Your task to perform on an android device: turn off wifi Image 0: 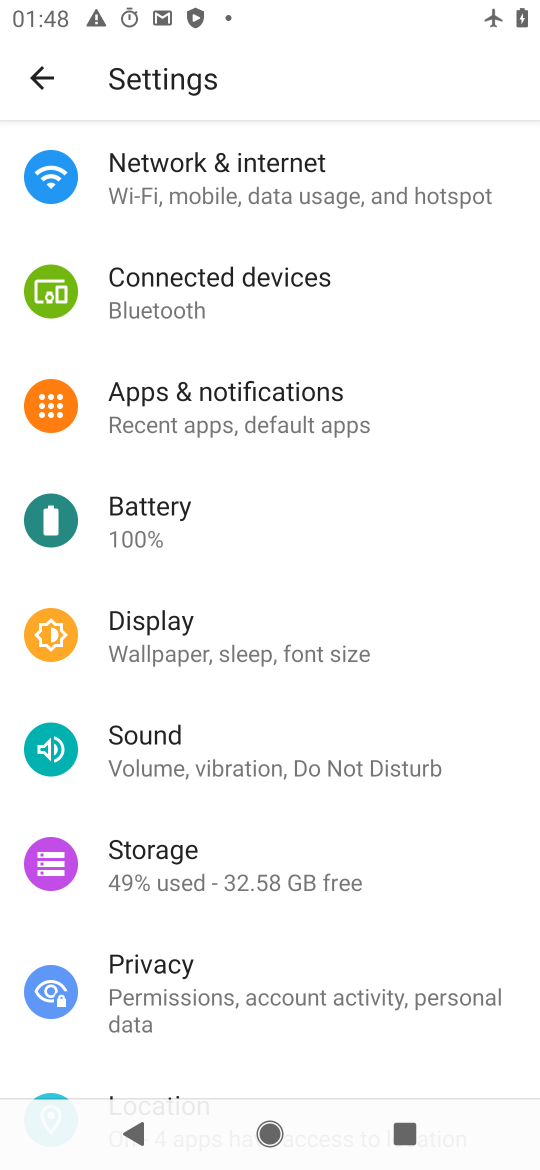
Step 0: click (206, 200)
Your task to perform on an android device: turn off wifi Image 1: 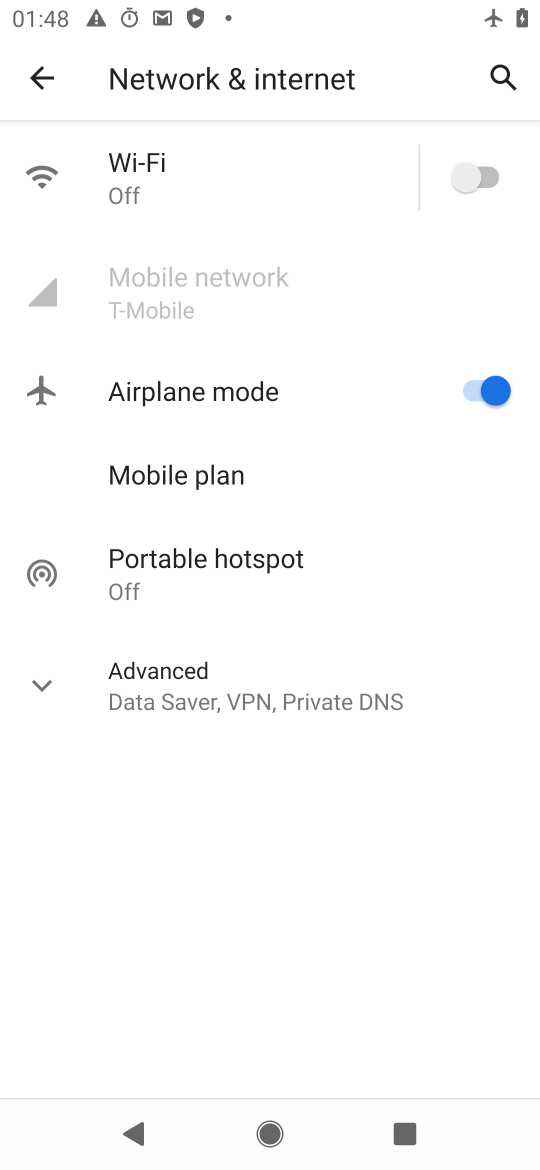
Step 1: task complete